Your task to perform on an android device: Go to calendar. Show me events next week Image 0: 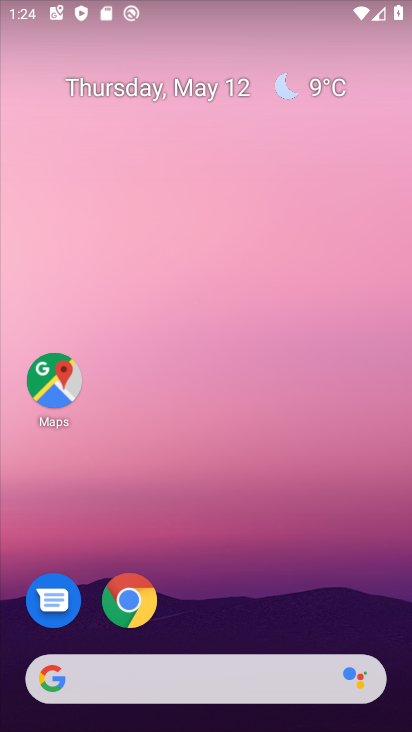
Step 0: press home button
Your task to perform on an android device: Go to calendar. Show me events next week Image 1: 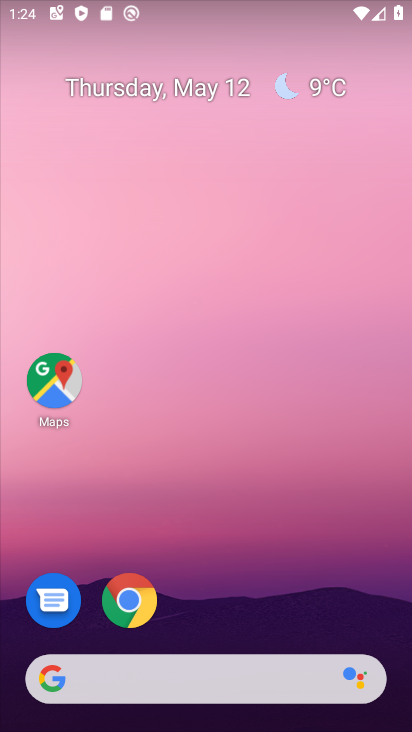
Step 1: drag from (344, 581) to (195, 3)
Your task to perform on an android device: Go to calendar. Show me events next week Image 2: 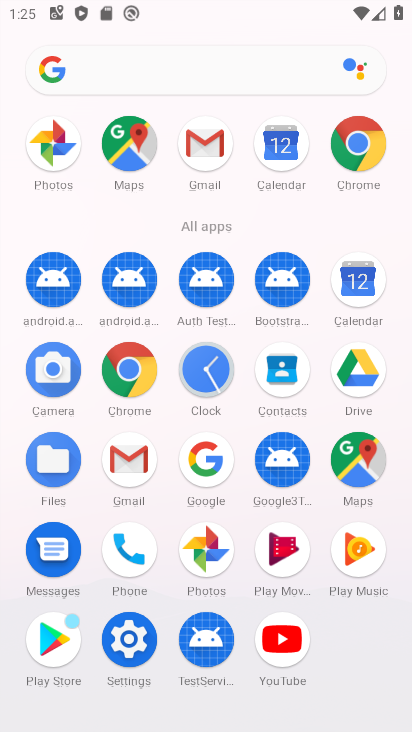
Step 2: click (353, 285)
Your task to perform on an android device: Go to calendar. Show me events next week Image 3: 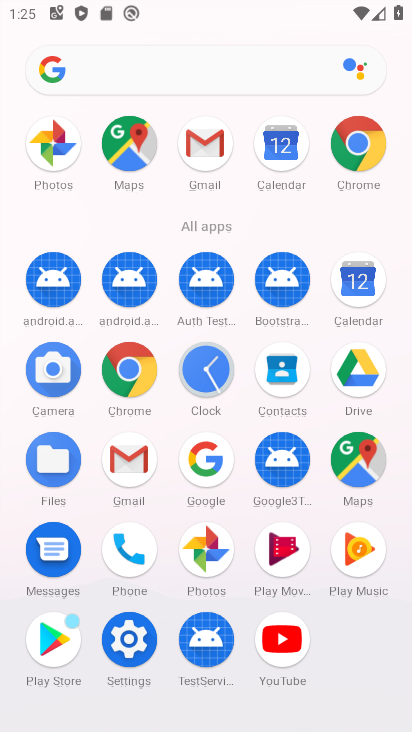
Step 3: click (353, 285)
Your task to perform on an android device: Go to calendar. Show me events next week Image 4: 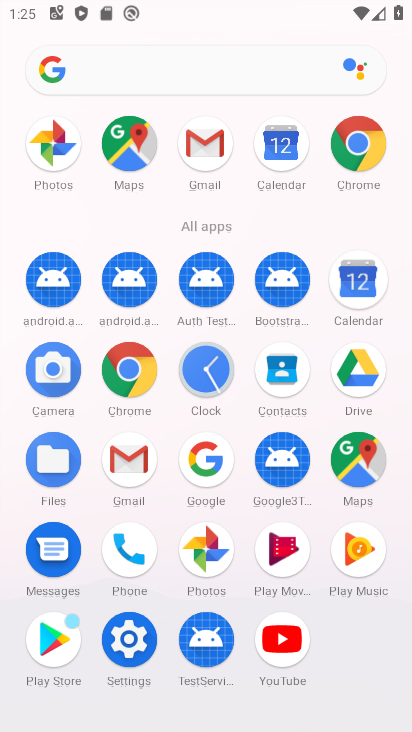
Step 4: click (353, 285)
Your task to perform on an android device: Go to calendar. Show me events next week Image 5: 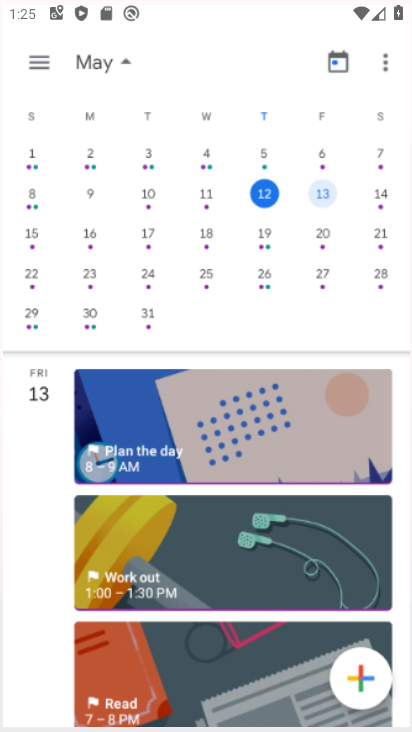
Step 5: click (353, 285)
Your task to perform on an android device: Go to calendar. Show me events next week Image 6: 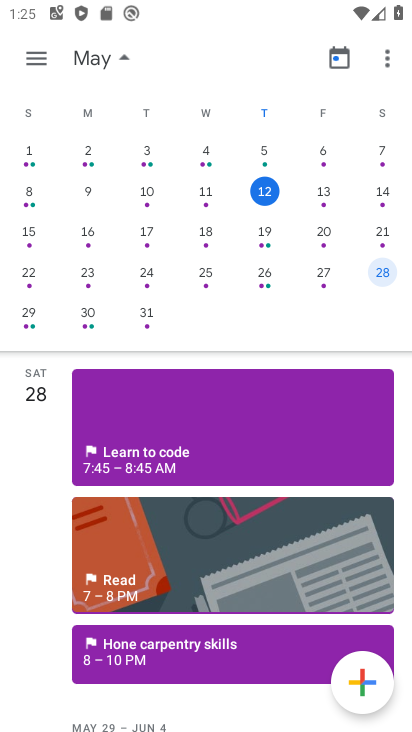
Step 6: click (353, 285)
Your task to perform on an android device: Go to calendar. Show me events next week Image 7: 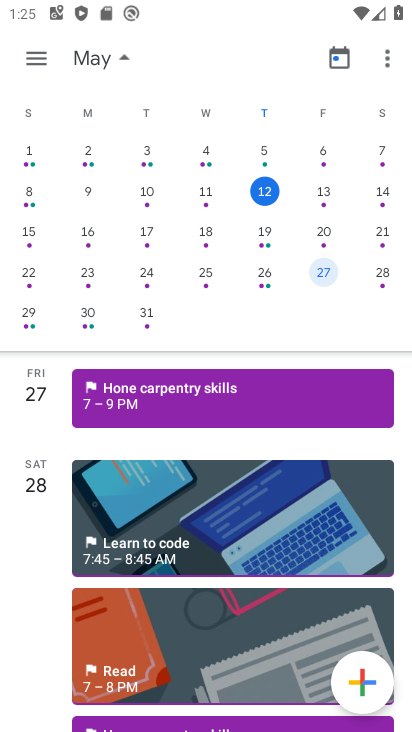
Step 7: click (257, 190)
Your task to perform on an android device: Go to calendar. Show me events next week Image 8: 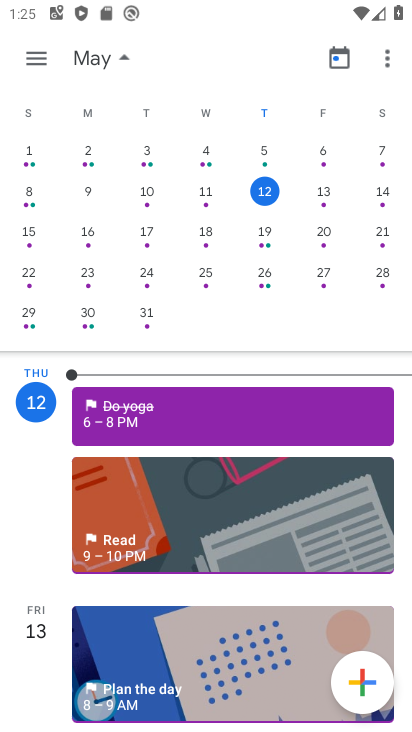
Step 8: click (111, 58)
Your task to perform on an android device: Go to calendar. Show me events next week Image 9: 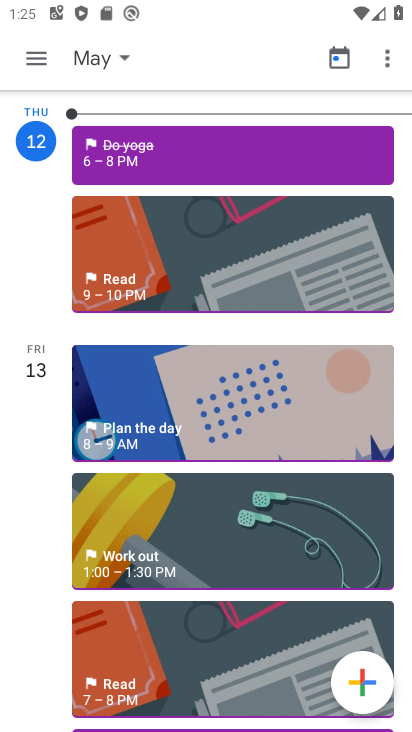
Step 9: task complete